Your task to perform on an android device: Go to battery settings Image 0: 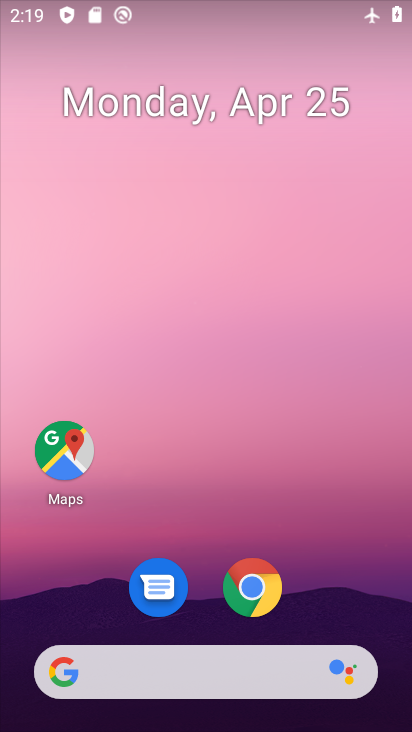
Step 0: drag from (339, 576) to (268, 59)
Your task to perform on an android device: Go to battery settings Image 1: 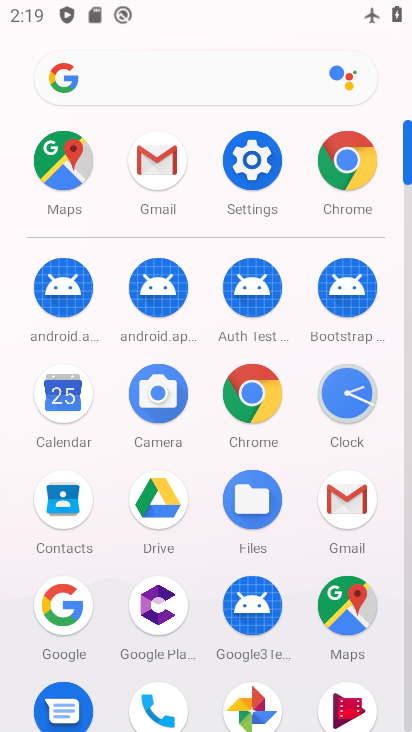
Step 1: click (269, 172)
Your task to perform on an android device: Go to battery settings Image 2: 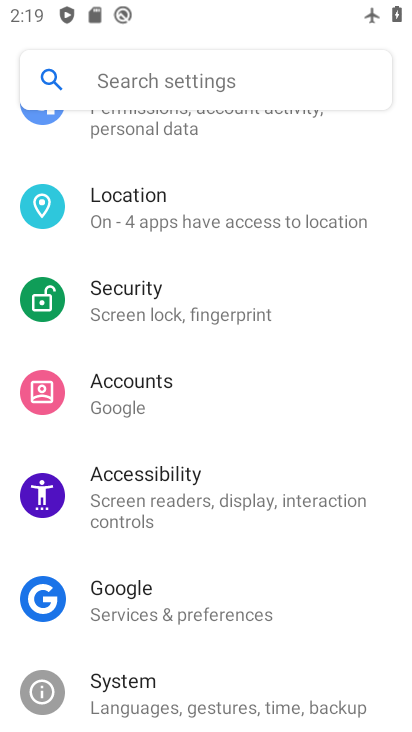
Step 2: drag from (302, 297) to (309, 664)
Your task to perform on an android device: Go to battery settings Image 3: 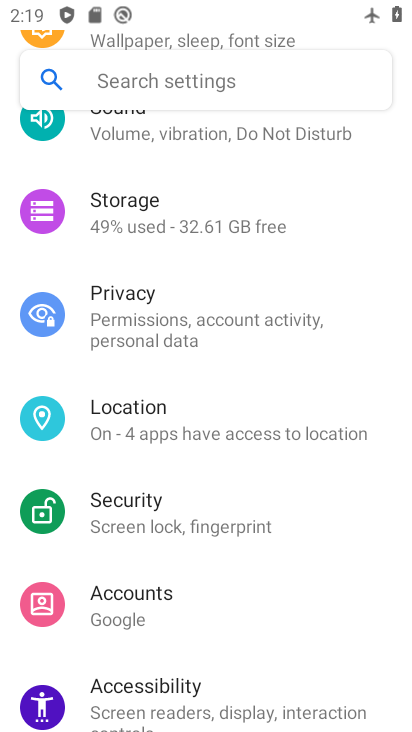
Step 3: drag from (256, 213) to (292, 582)
Your task to perform on an android device: Go to battery settings Image 4: 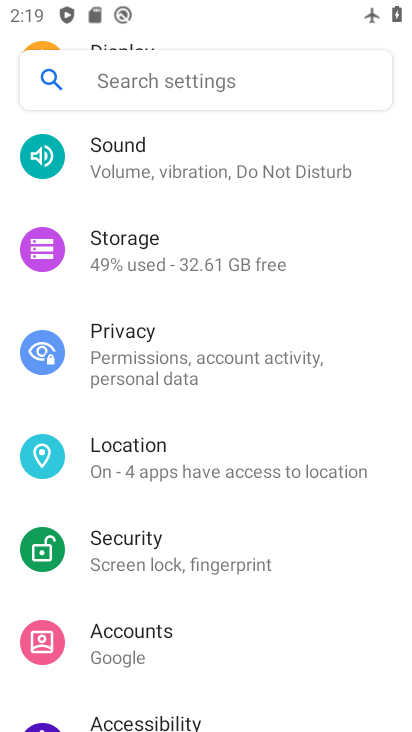
Step 4: drag from (257, 231) to (294, 635)
Your task to perform on an android device: Go to battery settings Image 5: 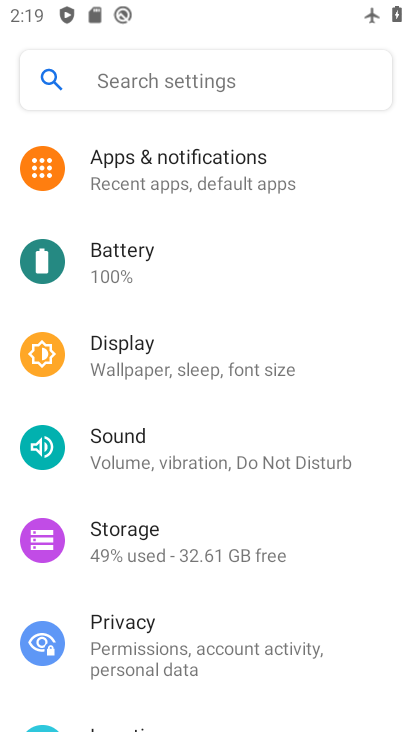
Step 5: click (96, 264)
Your task to perform on an android device: Go to battery settings Image 6: 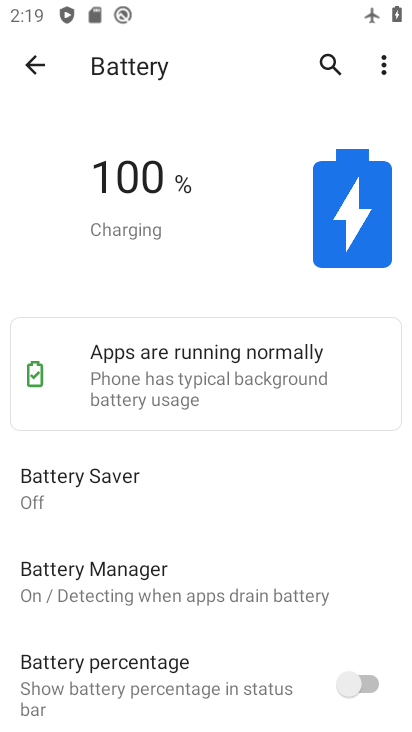
Step 6: click (387, 66)
Your task to perform on an android device: Go to battery settings Image 7: 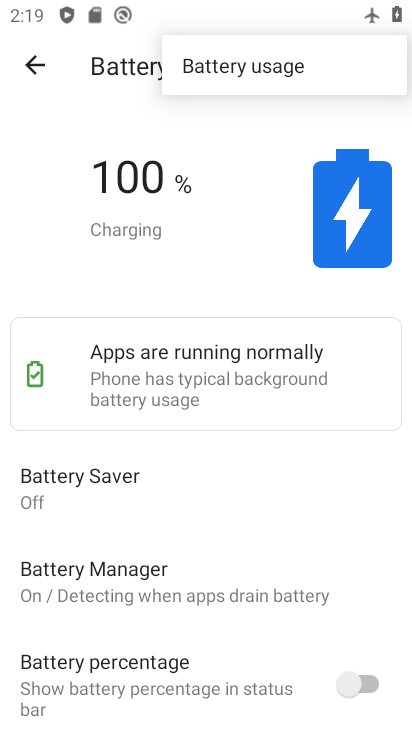
Step 7: task complete